Your task to perform on an android device: What's the weather going to be tomorrow? Image 0: 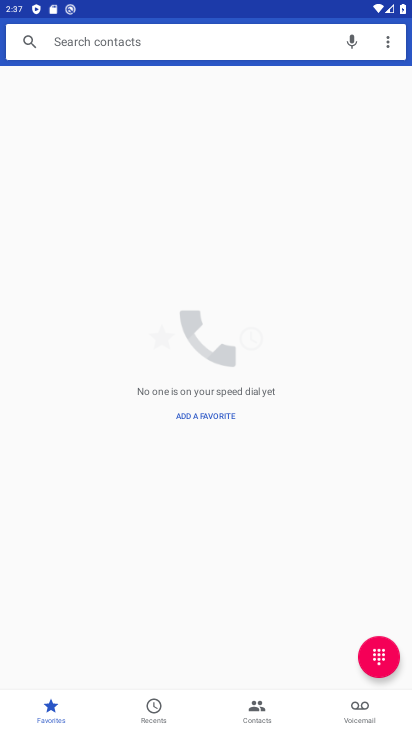
Step 0: click (39, 32)
Your task to perform on an android device: What's the weather going to be tomorrow? Image 1: 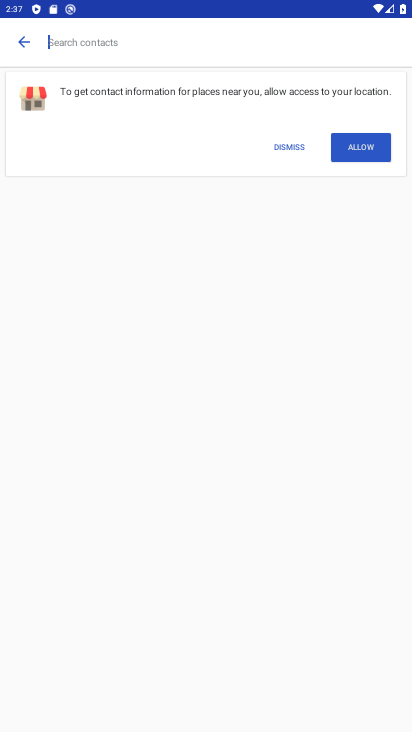
Step 1: press back button
Your task to perform on an android device: What's the weather going to be tomorrow? Image 2: 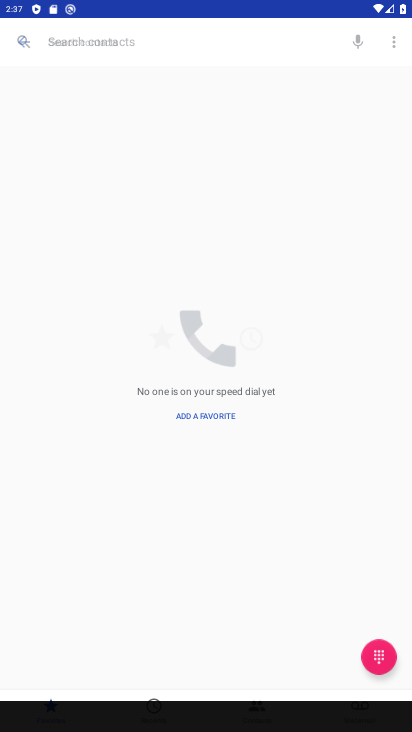
Step 2: press back button
Your task to perform on an android device: What's the weather going to be tomorrow? Image 3: 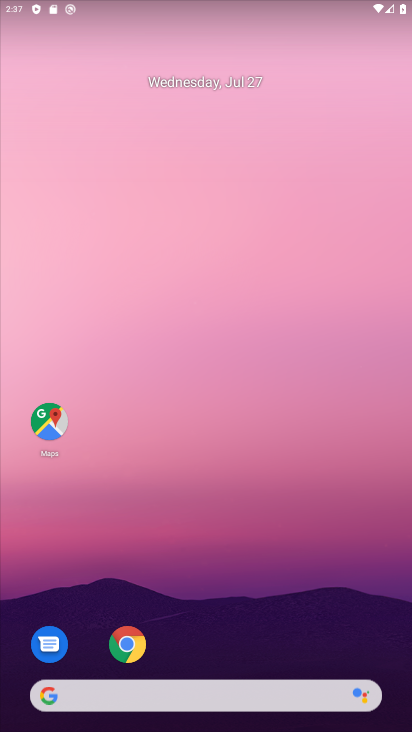
Step 3: drag from (239, 612) to (103, 188)
Your task to perform on an android device: What's the weather going to be tomorrow? Image 4: 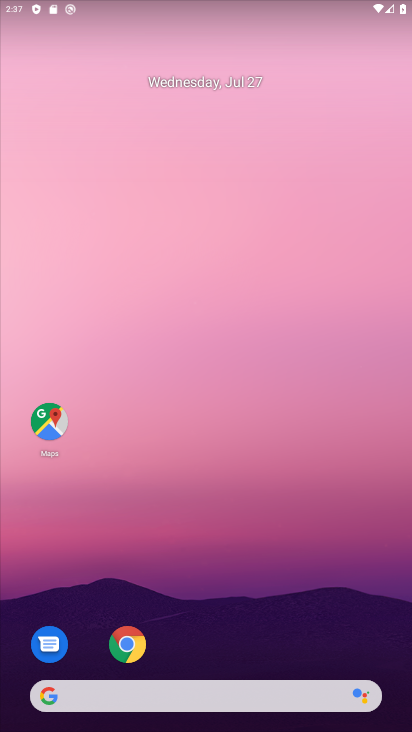
Step 4: click (164, 198)
Your task to perform on an android device: What's the weather going to be tomorrow? Image 5: 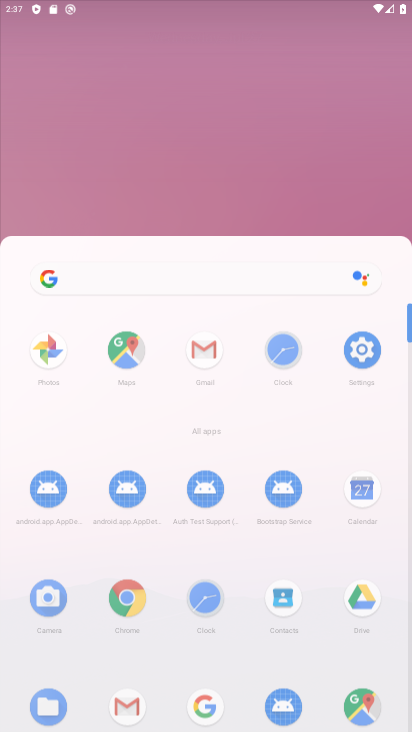
Step 5: drag from (263, 484) to (225, 24)
Your task to perform on an android device: What's the weather going to be tomorrow? Image 6: 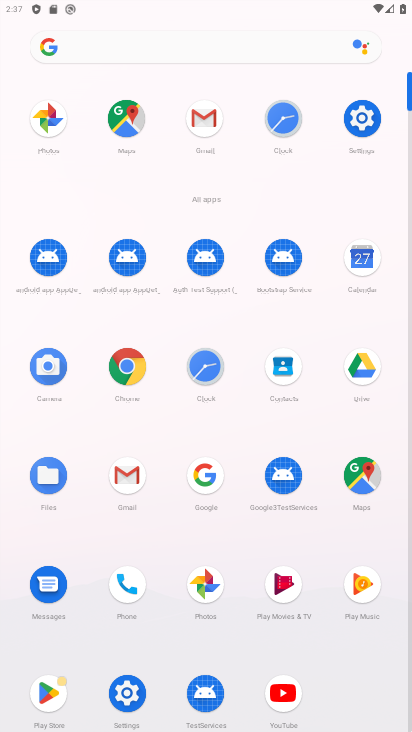
Step 6: click (122, 360)
Your task to perform on an android device: What's the weather going to be tomorrow? Image 7: 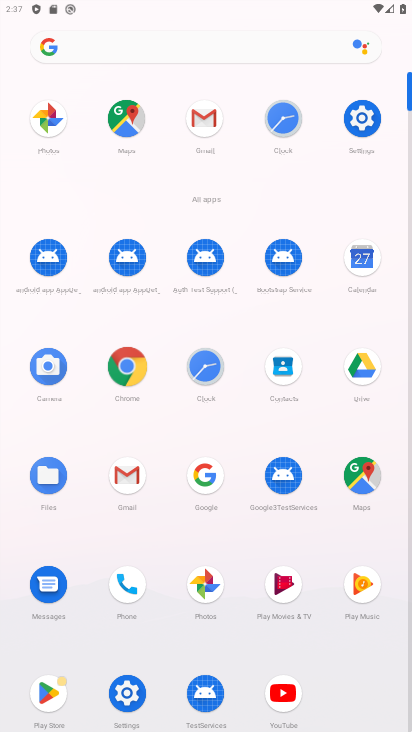
Step 7: click (123, 367)
Your task to perform on an android device: What's the weather going to be tomorrow? Image 8: 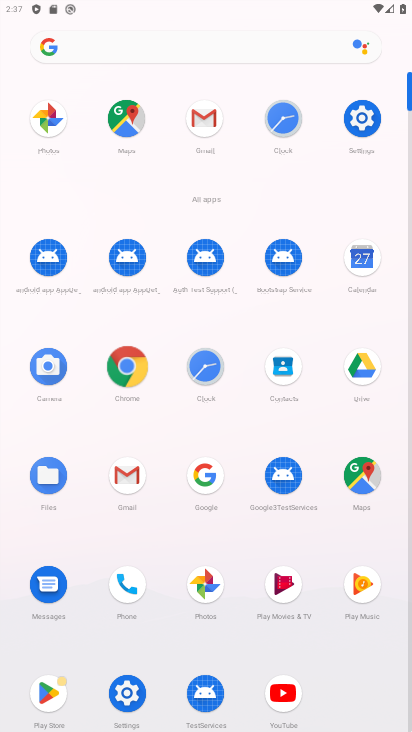
Step 8: click (126, 365)
Your task to perform on an android device: What's the weather going to be tomorrow? Image 9: 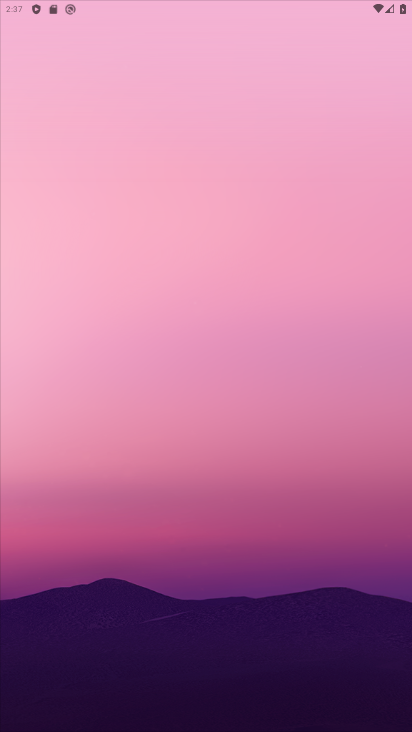
Step 9: click (129, 364)
Your task to perform on an android device: What's the weather going to be tomorrow? Image 10: 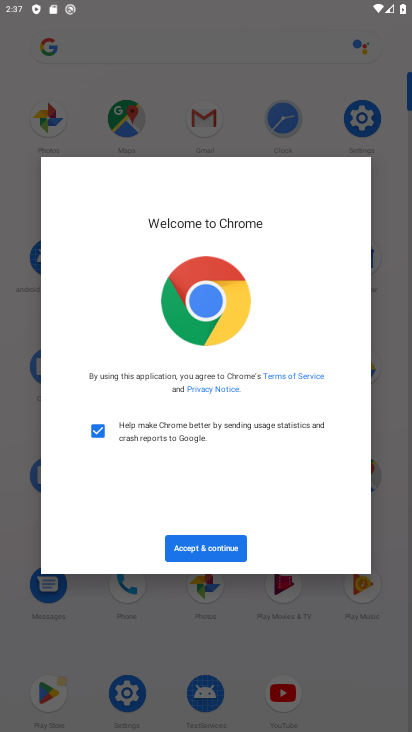
Step 10: click (208, 544)
Your task to perform on an android device: What's the weather going to be tomorrow? Image 11: 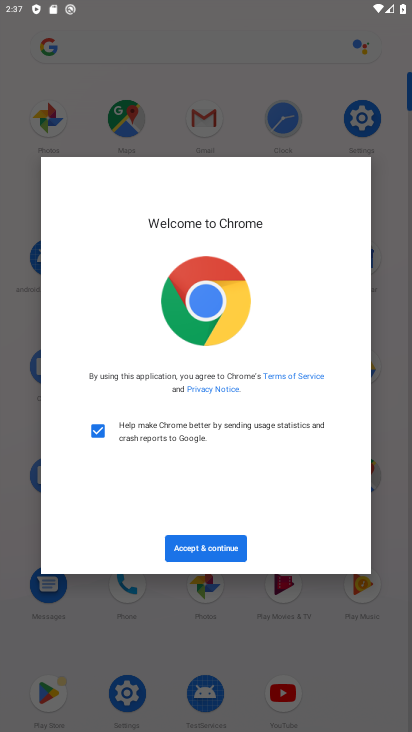
Step 11: click (207, 545)
Your task to perform on an android device: What's the weather going to be tomorrow? Image 12: 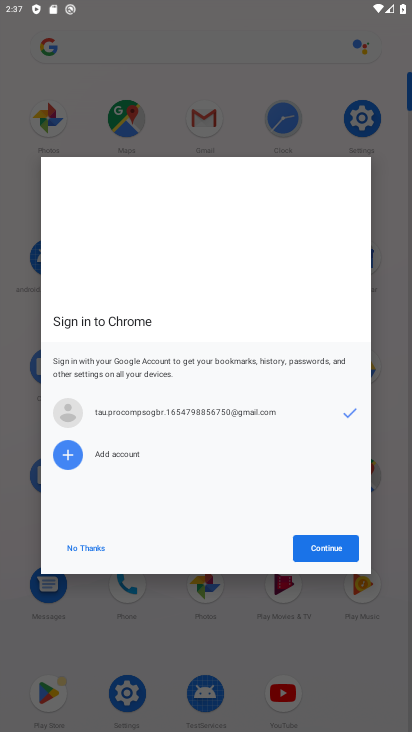
Step 12: click (212, 540)
Your task to perform on an android device: What's the weather going to be tomorrow? Image 13: 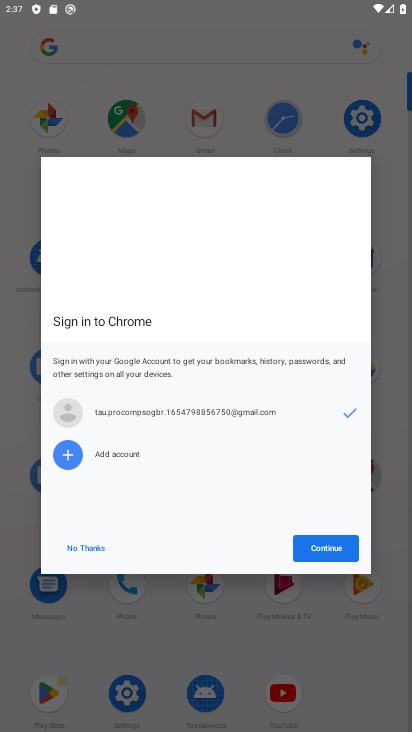
Step 13: click (213, 540)
Your task to perform on an android device: What's the weather going to be tomorrow? Image 14: 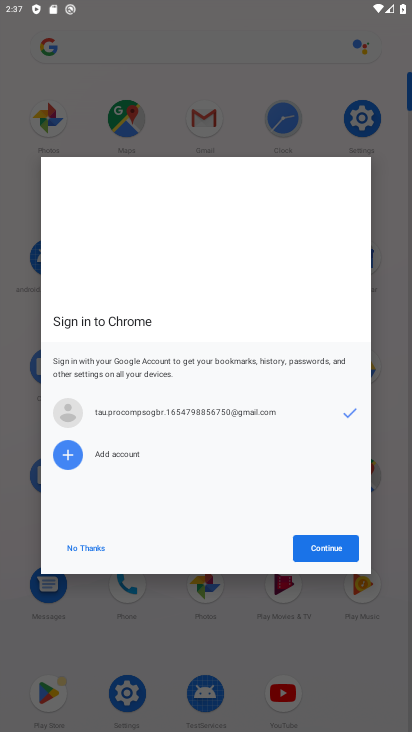
Step 14: click (213, 540)
Your task to perform on an android device: What's the weather going to be tomorrow? Image 15: 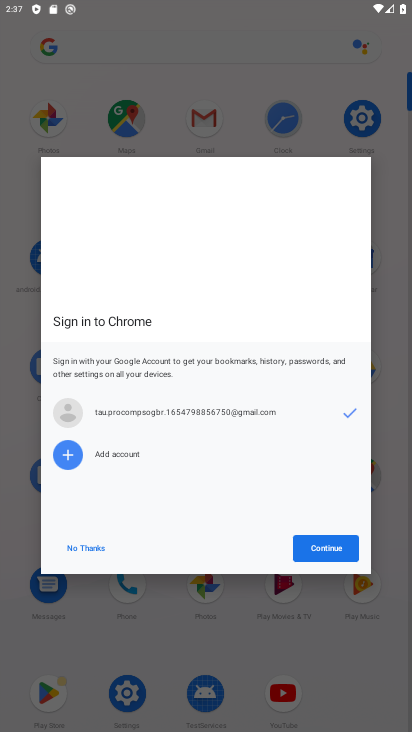
Step 15: click (83, 545)
Your task to perform on an android device: What's the weather going to be tomorrow? Image 16: 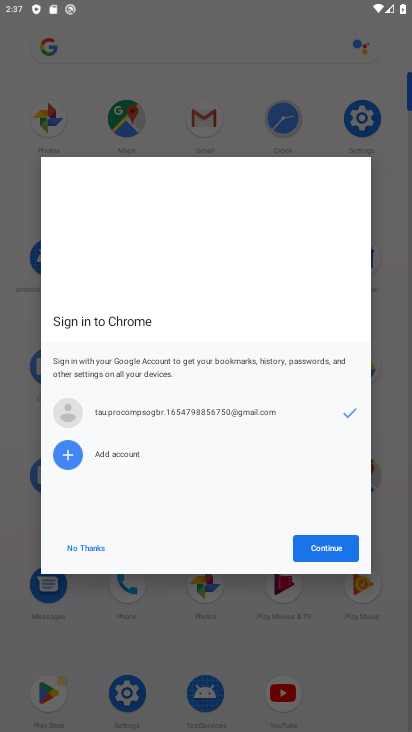
Step 16: click (84, 544)
Your task to perform on an android device: What's the weather going to be tomorrow? Image 17: 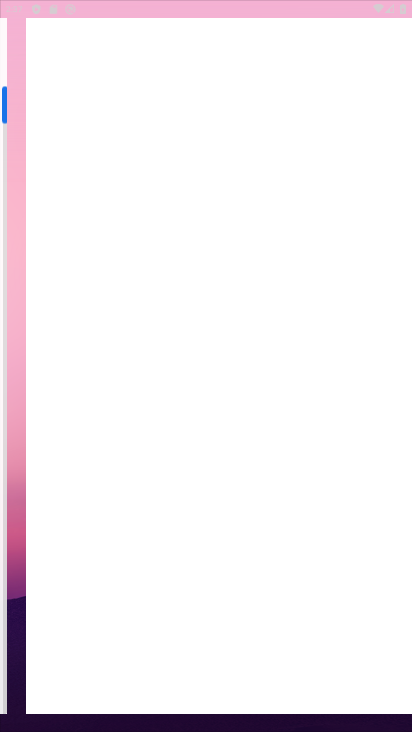
Step 17: click (87, 540)
Your task to perform on an android device: What's the weather going to be tomorrow? Image 18: 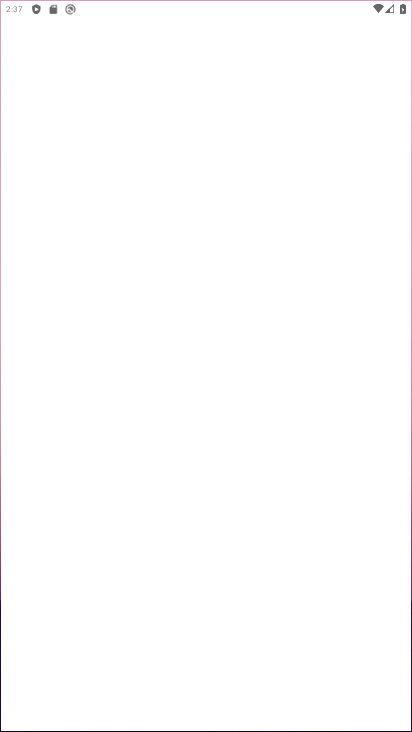
Step 18: click (87, 539)
Your task to perform on an android device: What's the weather going to be tomorrow? Image 19: 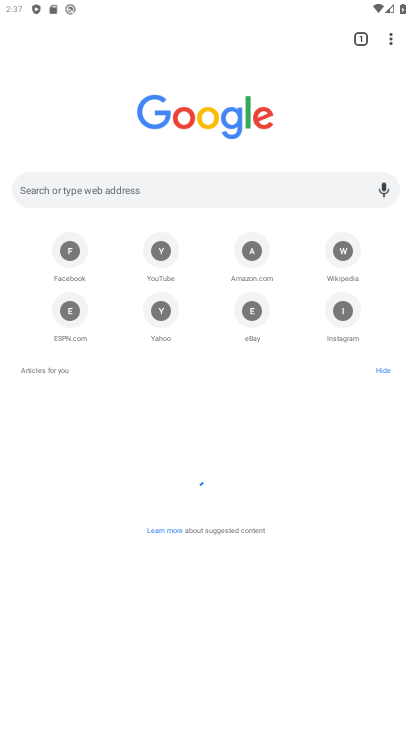
Step 19: click (108, 197)
Your task to perform on an android device: What's the weather going to be tomorrow? Image 20: 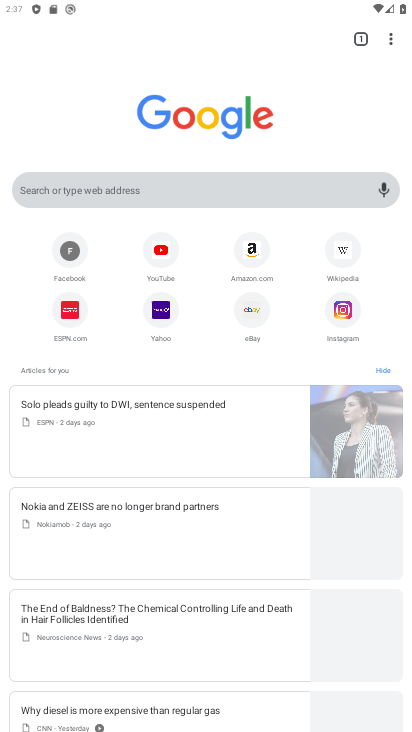
Step 20: click (108, 197)
Your task to perform on an android device: What's the weather going to be tomorrow? Image 21: 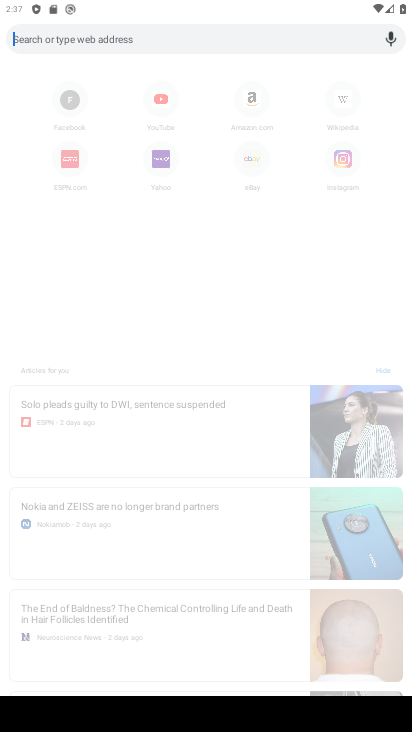
Step 21: click (85, 195)
Your task to perform on an android device: What's the weather going to be tomorrow? Image 22: 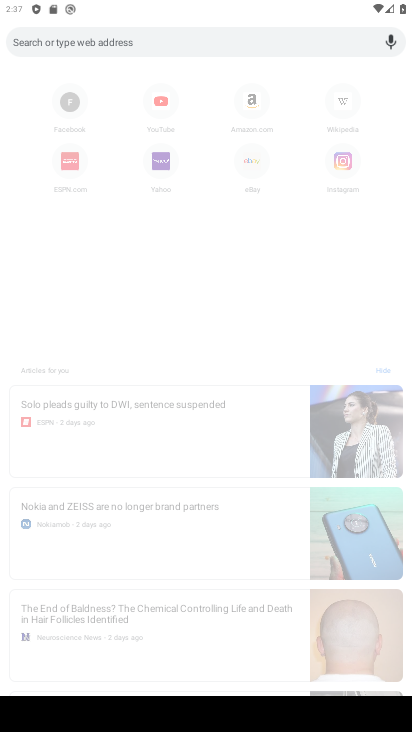
Step 22: click (85, 195)
Your task to perform on an android device: What's the weather going to be tomorrow? Image 23: 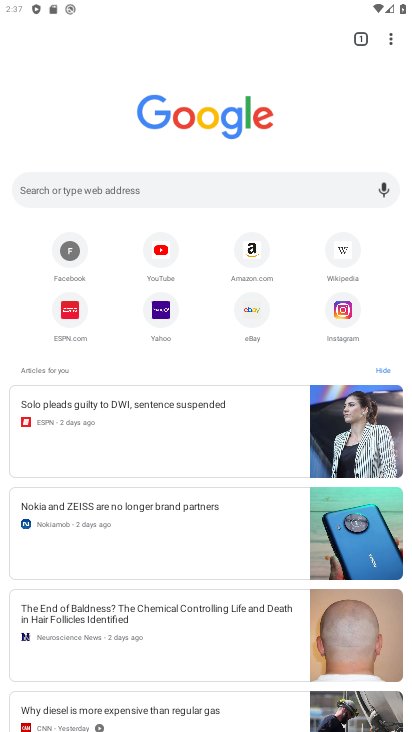
Step 23: click (42, 192)
Your task to perform on an android device: What's the weather going to be tomorrow? Image 24: 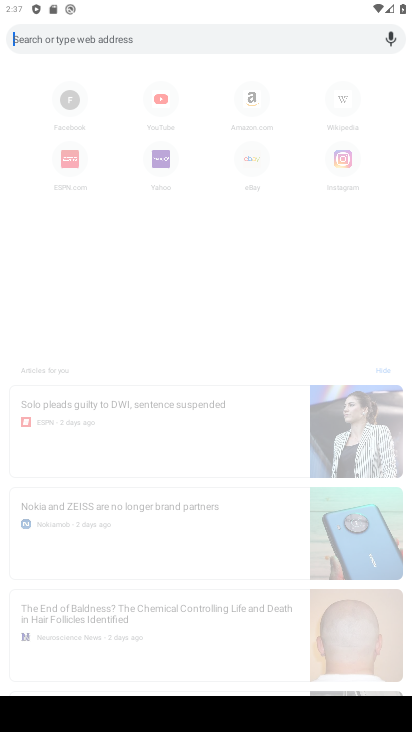
Step 24: type "weathyer"
Your task to perform on an android device: What's the weather going to be tomorrow? Image 25: 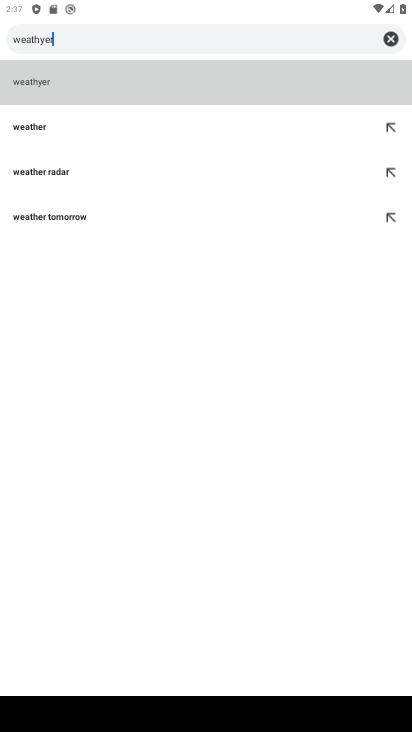
Step 25: click (39, 126)
Your task to perform on an android device: What's the weather going to be tomorrow? Image 26: 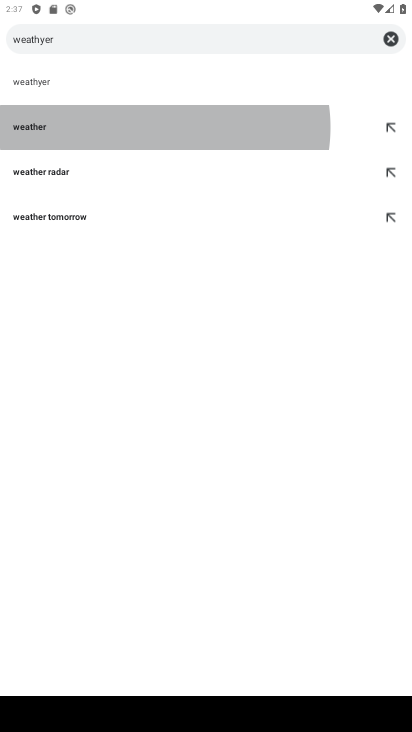
Step 26: click (39, 126)
Your task to perform on an android device: What's the weather going to be tomorrow? Image 27: 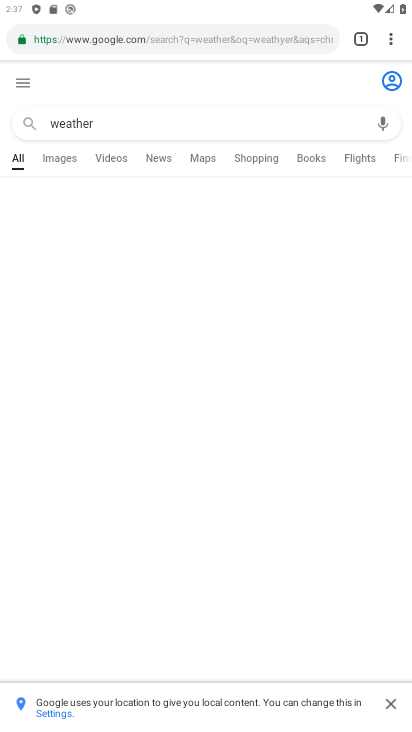
Step 27: task complete